Your task to perform on an android device: turn on javascript in the chrome app Image 0: 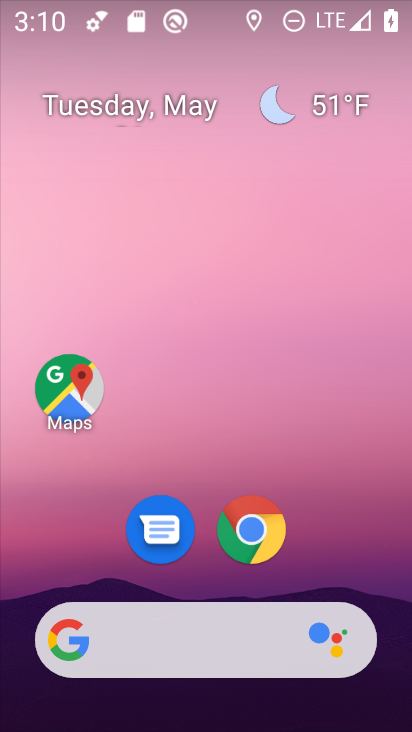
Step 0: click (255, 543)
Your task to perform on an android device: turn on javascript in the chrome app Image 1: 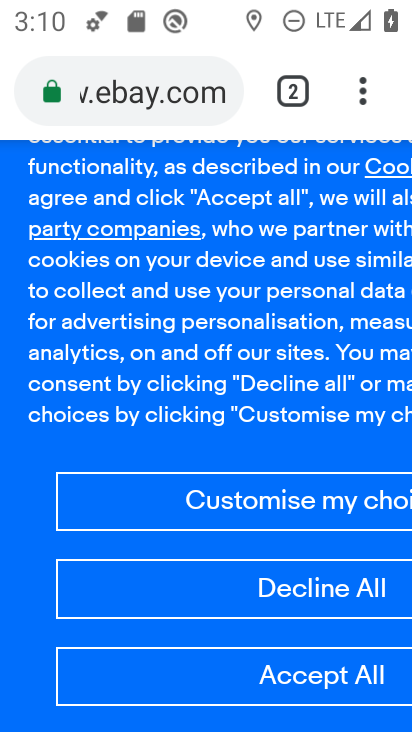
Step 1: drag from (362, 81) to (135, 557)
Your task to perform on an android device: turn on javascript in the chrome app Image 2: 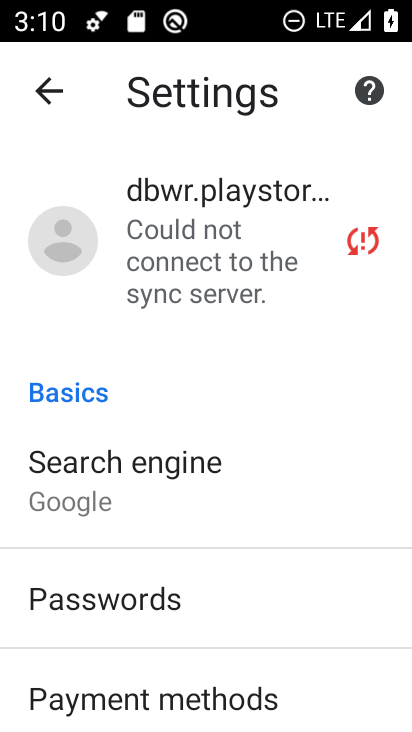
Step 2: drag from (126, 673) to (229, 137)
Your task to perform on an android device: turn on javascript in the chrome app Image 3: 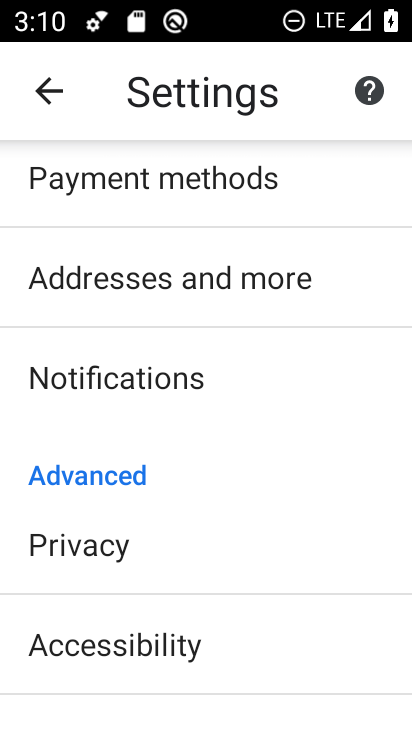
Step 3: drag from (149, 627) to (258, 190)
Your task to perform on an android device: turn on javascript in the chrome app Image 4: 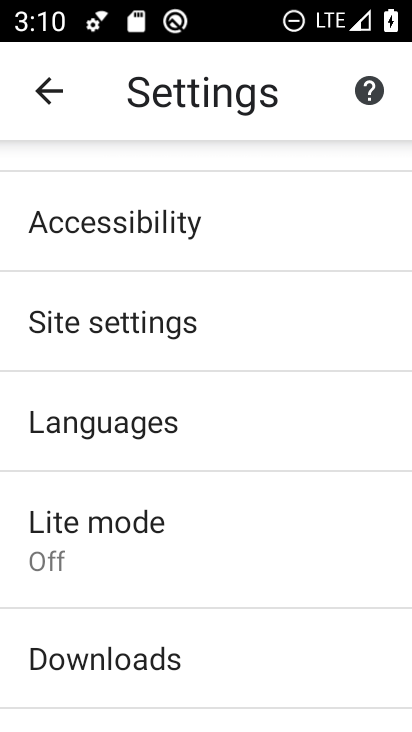
Step 4: click (98, 320)
Your task to perform on an android device: turn on javascript in the chrome app Image 5: 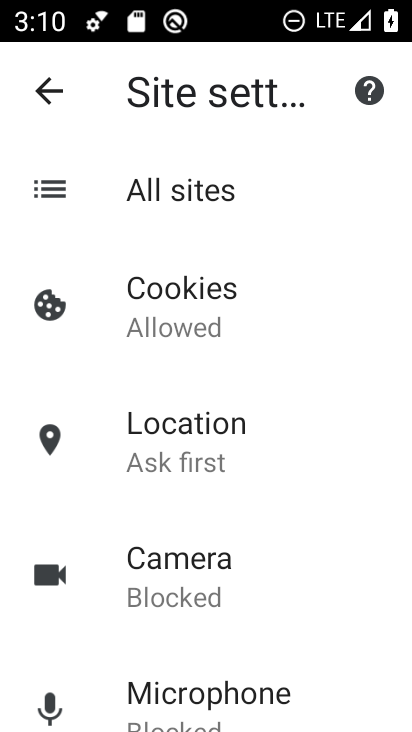
Step 5: drag from (196, 672) to (240, 205)
Your task to perform on an android device: turn on javascript in the chrome app Image 6: 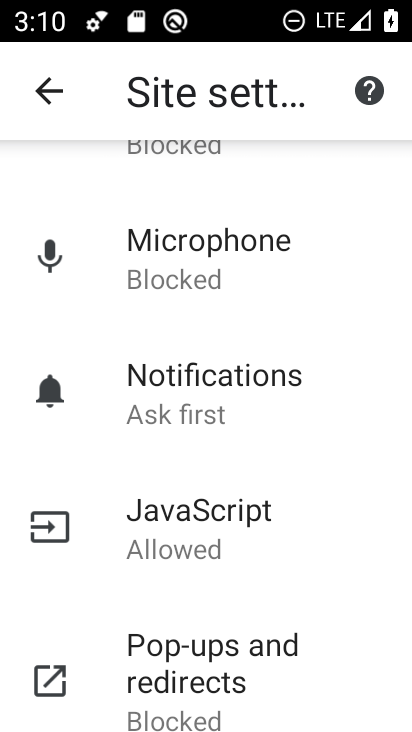
Step 6: click (195, 522)
Your task to perform on an android device: turn on javascript in the chrome app Image 7: 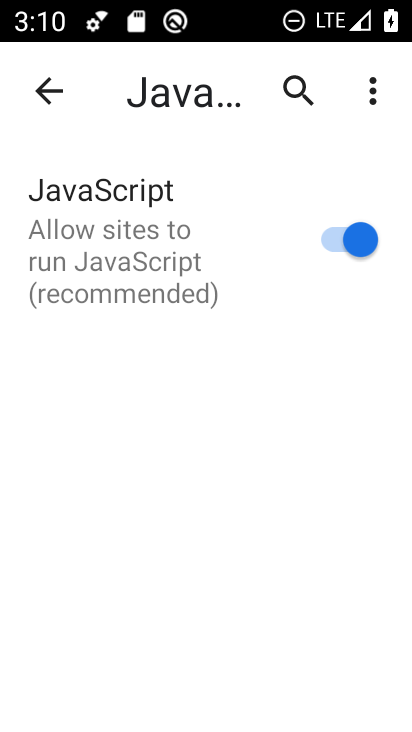
Step 7: task complete